Your task to perform on an android device: Look up the best rated gaming chair on Best Buy Image 0: 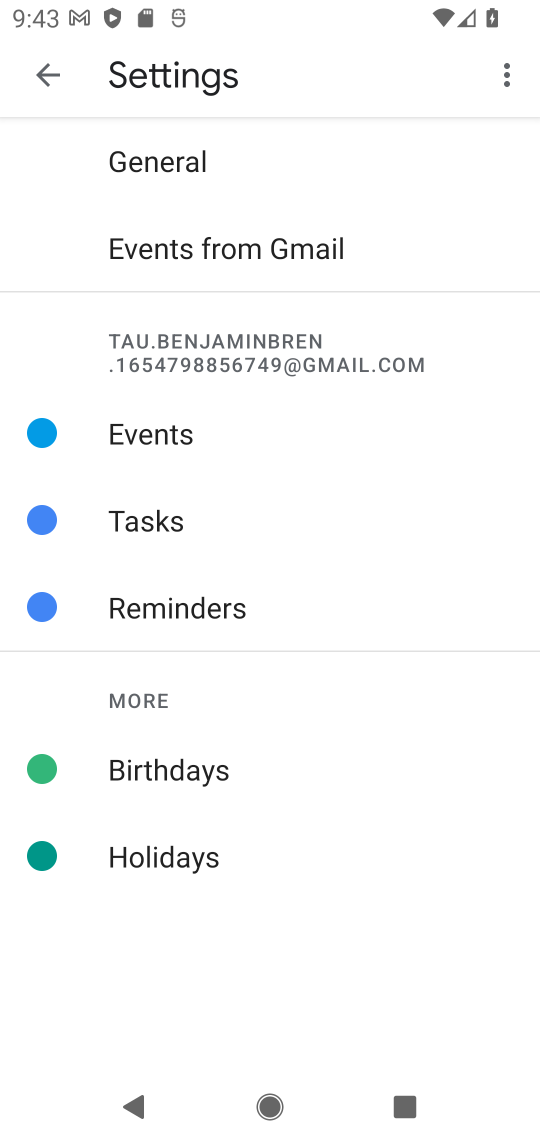
Step 0: press home button
Your task to perform on an android device: Look up the best rated gaming chair on Best Buy Image 1: 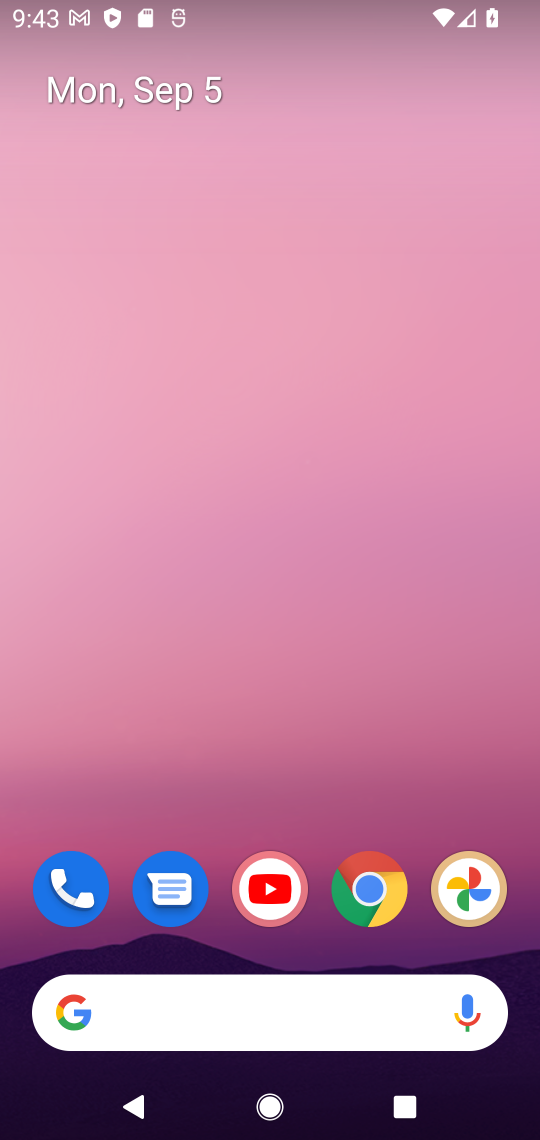
Step 1: click (224, 986)
Your task to perform on an android device: Look up the best rated gaming chair on Best Buy Image 2: 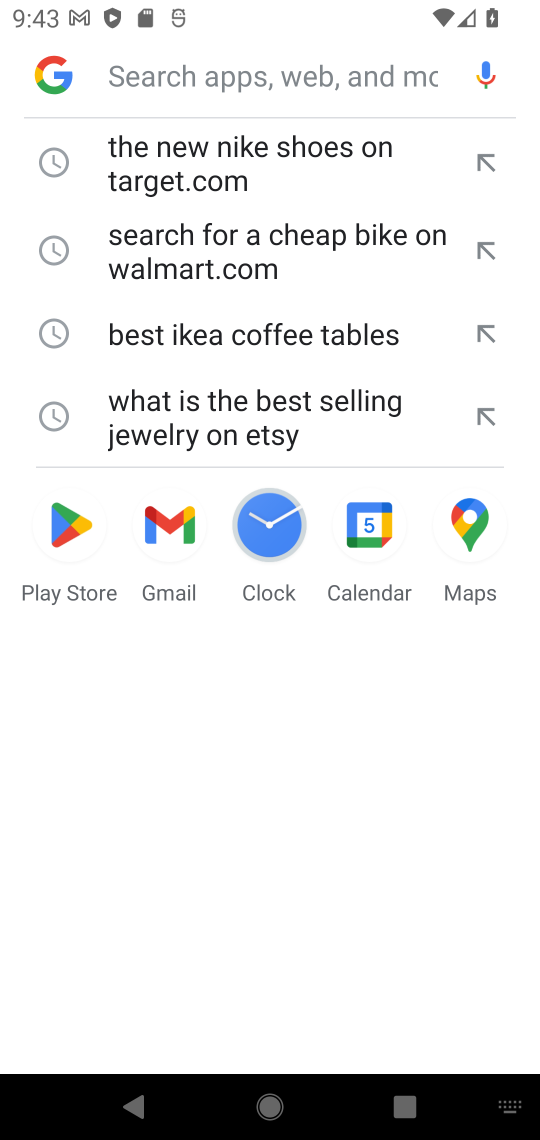
Step 2: click (271, 171)
Your task to perform on an android device: Look up the best rated gaming chair on Best Buy Image 3: 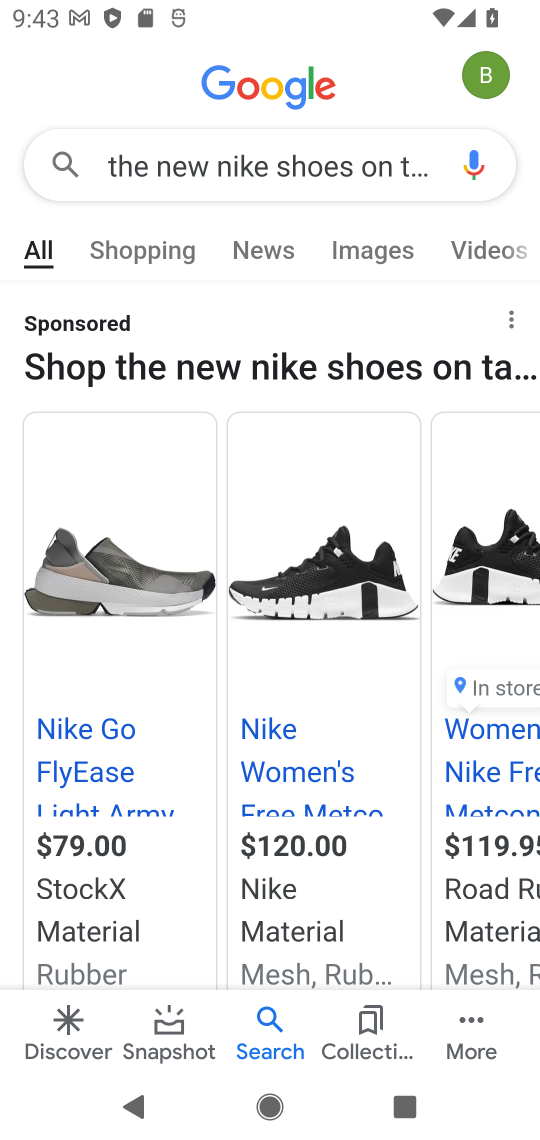
Step 3: task complete